Your task to perform on an android device: turn off wifi Image 0: 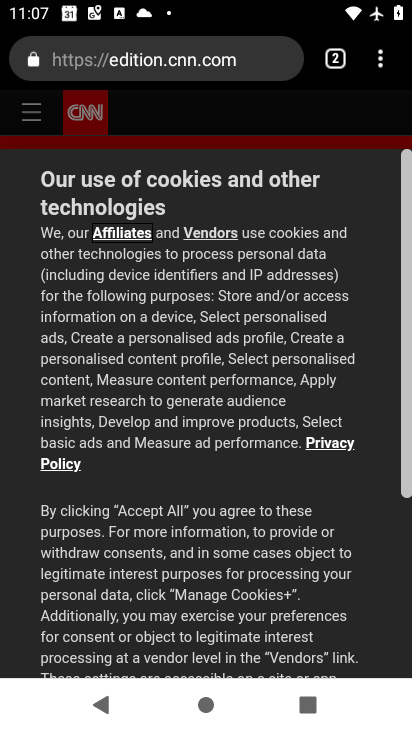
Step 0: press home button
Your task to perform on an android device: turn off wifi Image 1: 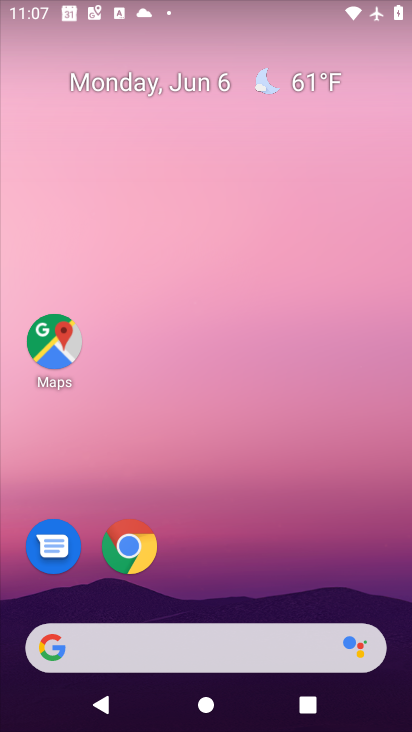
Step 1: drag from (384, 607) to (356, 95)
Your task to perform on an android device: turn off wifi Image 2: 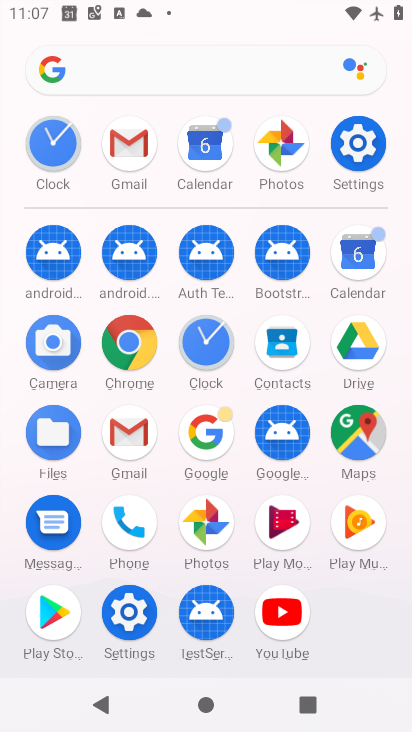
Step 2: click (132, 611)
Your task to perform on an android device: turn off wifi Image 3: 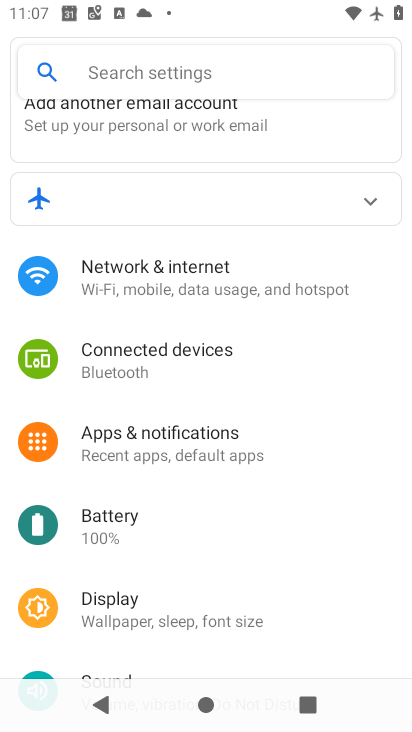
Step 3: click (149, 267)
Your task to perform on an android device: turn off wifi Image 4: 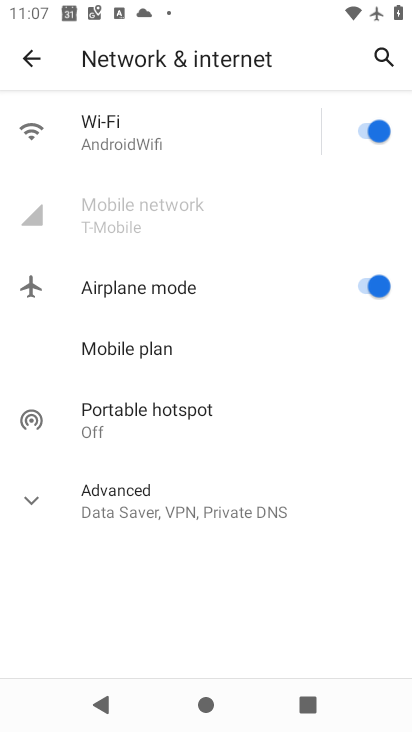
Step 4: click (363, 132)
Your task to perform on an android device: turn off wifi Image 5: 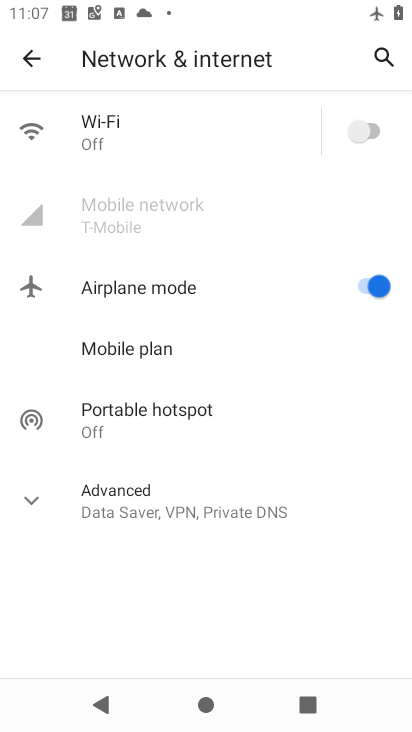
Step 5: task complete